Your task to perform on an android device: Search for seafood restaurants on Google Maps Image 0: 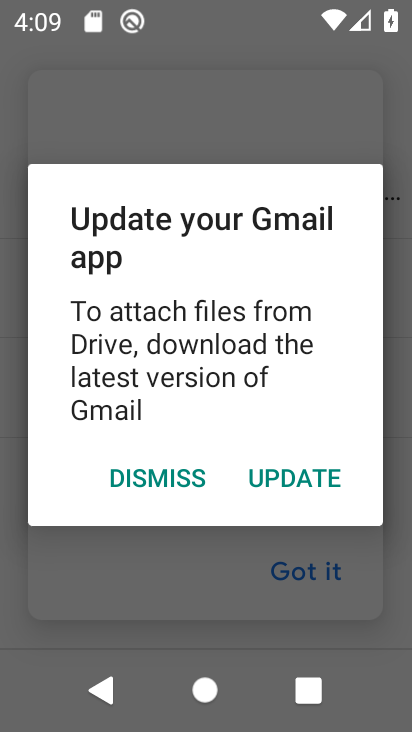
Step 0: press home button
Your task to perform on an android device: Search for seafood restaurants on Google Maps Image 1: 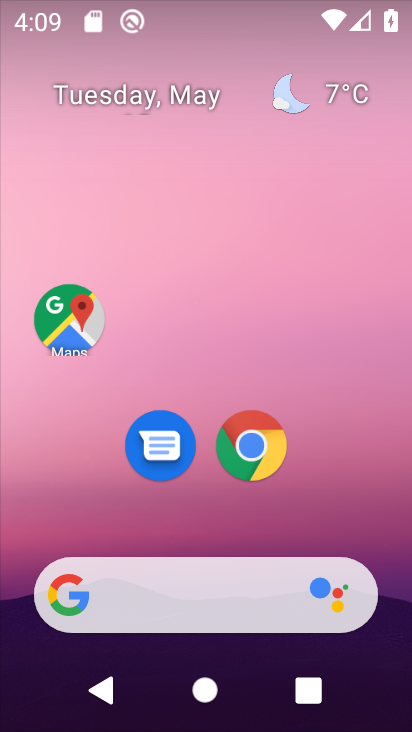
Step 1: click (77, 326)
Your task to perform on an android device: Search for seafood restaurants on Google Maps Image 2: 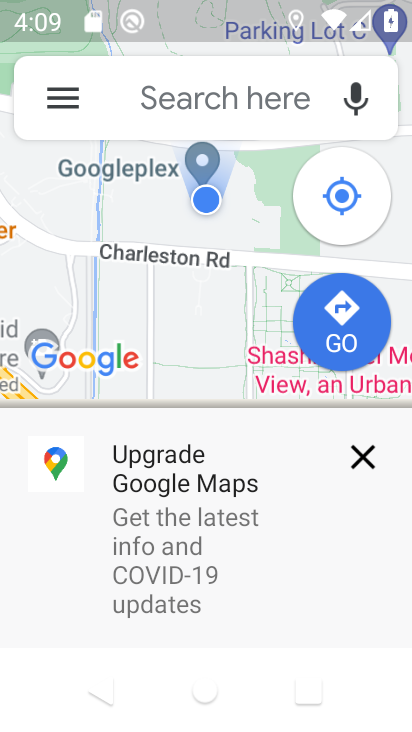
Step 2: click (371, 457)
Your task to perform on an android device: Search for seafood restaurants on Google Maps Image 3: 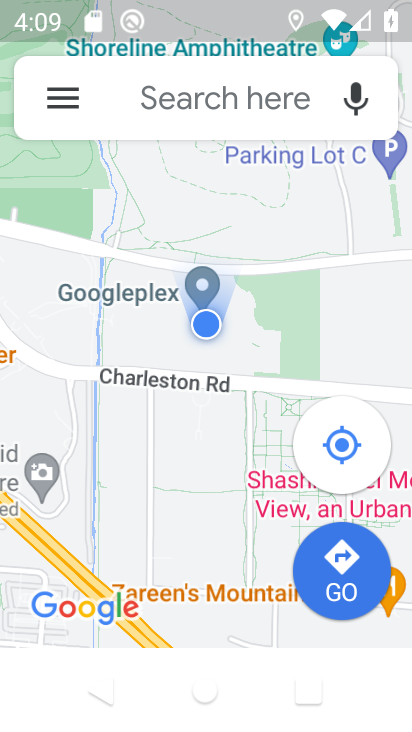
Step 3: click (143, 95)
Your task to perform on an android device: Search for seafood restaurants on Google Maps Image 4: 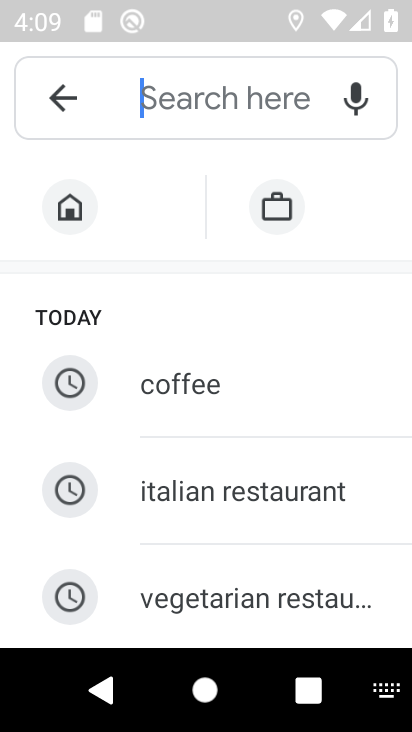
Step 4: type "seafood restaurants"
Your task to perform on an android device: Search for seafood restaurants on Google Maps Image 5: 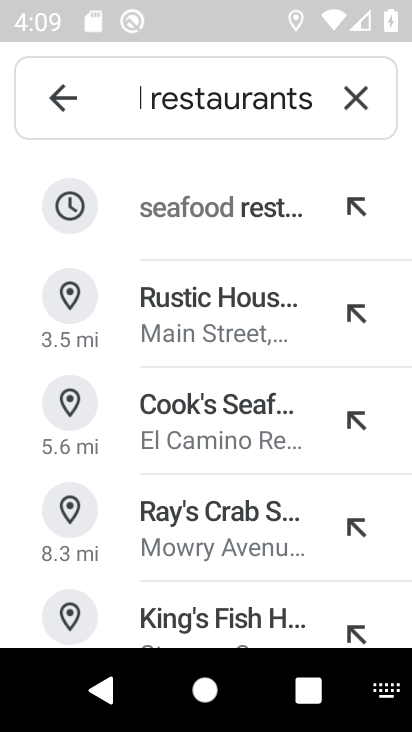
Step 5: click (232, 210)
Your task to perform on an android device: Search for seafood restaurants on Google Maps Image 6: 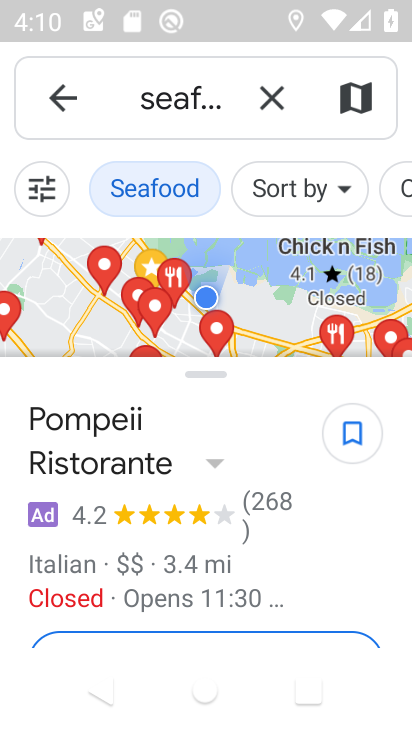
Step 6: task complete